Your task to perform on an android device: Search for Mexican restaurants on Maps Image 0: 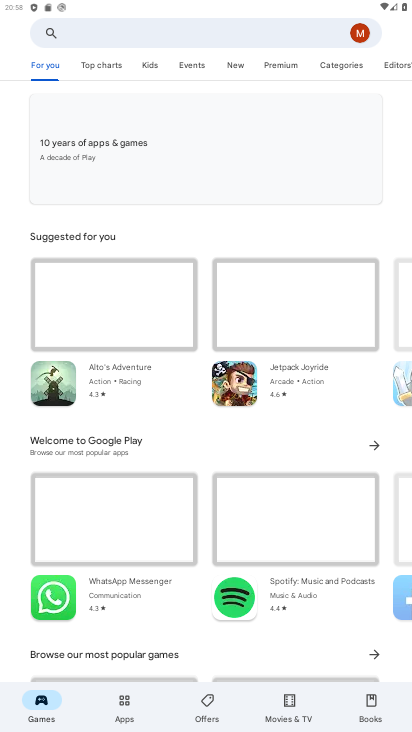
Step 0: press home button
Your task to perform on an android device: Search for Mexican restaurants on Maps Image 1: 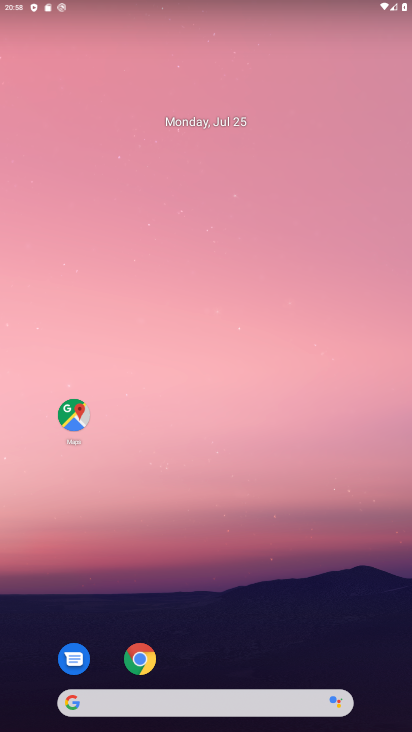
Step 1: click (89, 425)
Your task to perform on an android device: Search for Mexican restaurants on Maps Image 2: 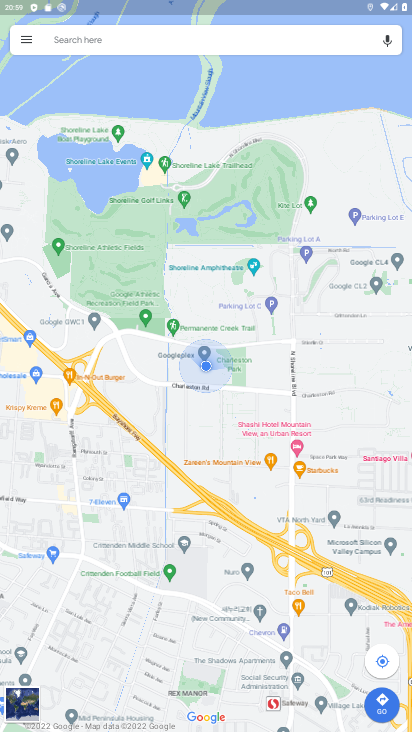
Step 2: click (120, 46)
Your task to perform on an android device: Search for Mexican restaurants on Maps Image 3: 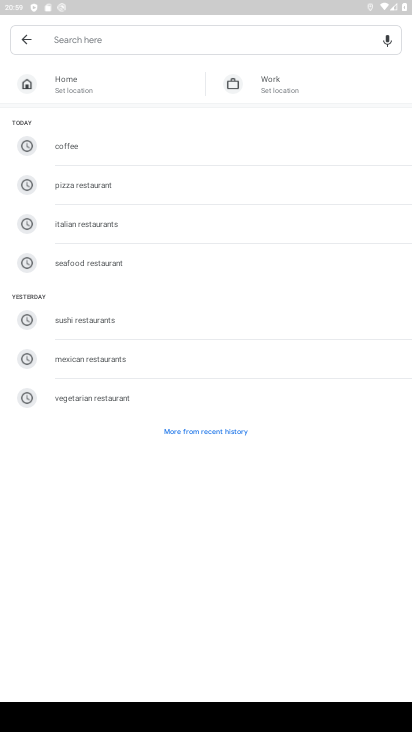
Step 3: click (155, 42)
Your task to perform on an android device: Search for Mexican restaurants on Maps Image 4: 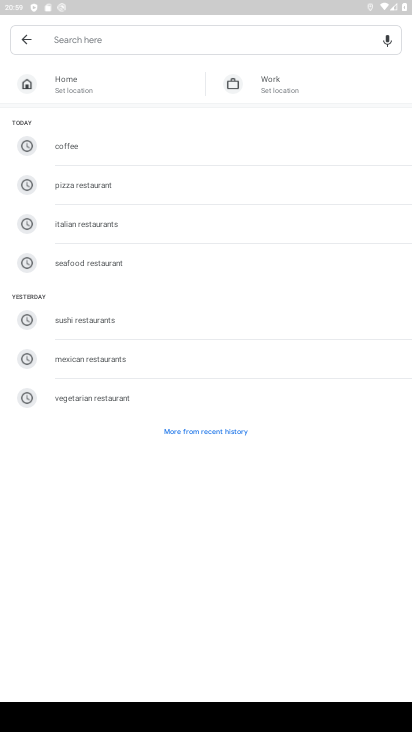
Step 4: type "Mexican restaurants"
Your task to perform on an android device: Search for Mexican restaurants on Maps Image 5: 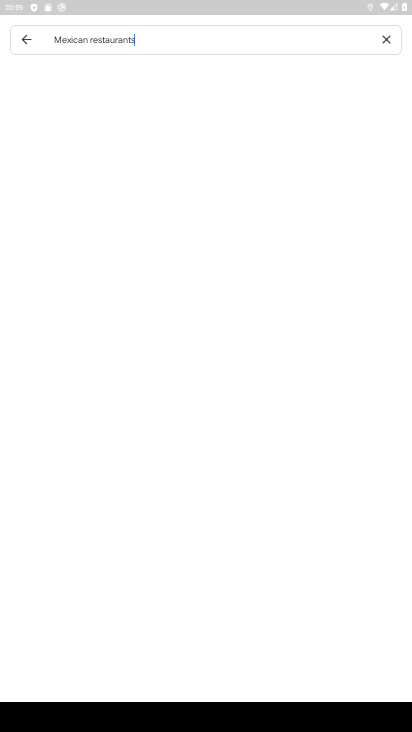
Step 5: type ""
Your task to perform on an android device: Search for Mexican restaurants on Maps Image 6: 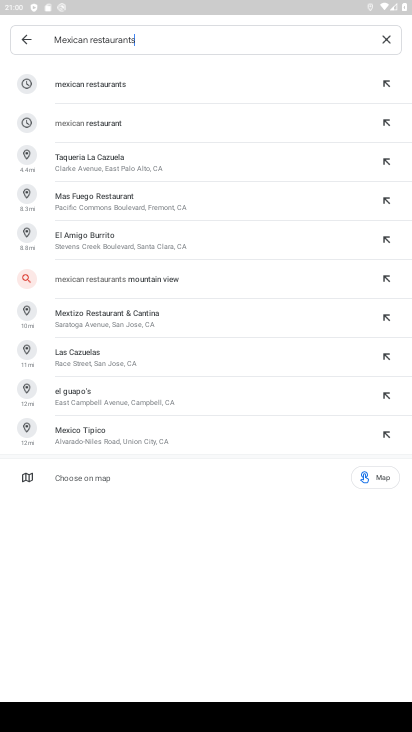
Step 6: click (144, 96)
Your task to perform on an android device: Search for Mexican restaurants on Maps Image 7: 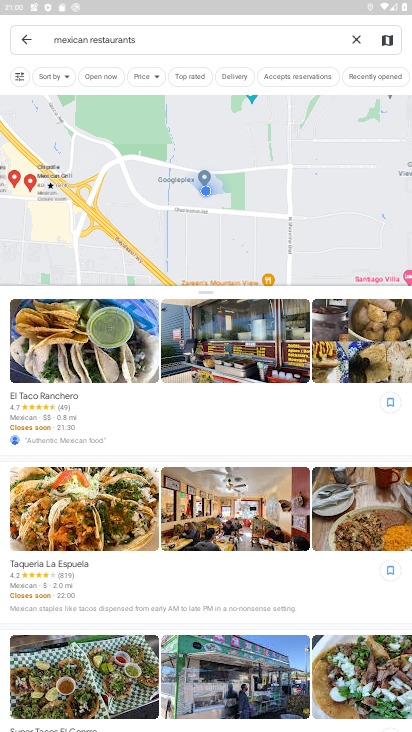
Step 7: task complete